Your task to perform on an android device: all mails in gmail Image 0: 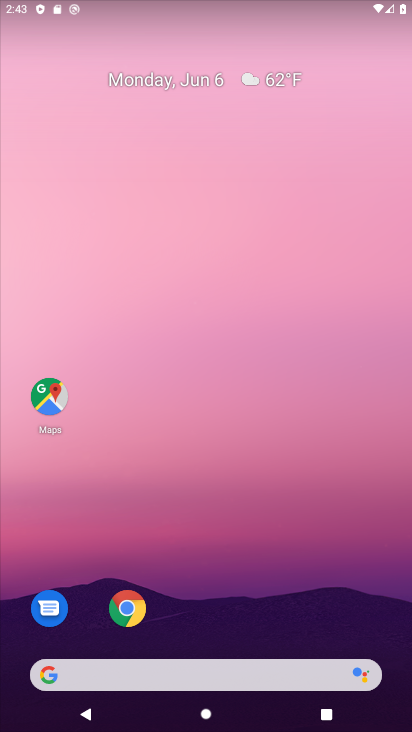
Step 0: drag from (254, 609) to (310, 22)
Your task to perform on an android device: all mails in gmail Image 1: 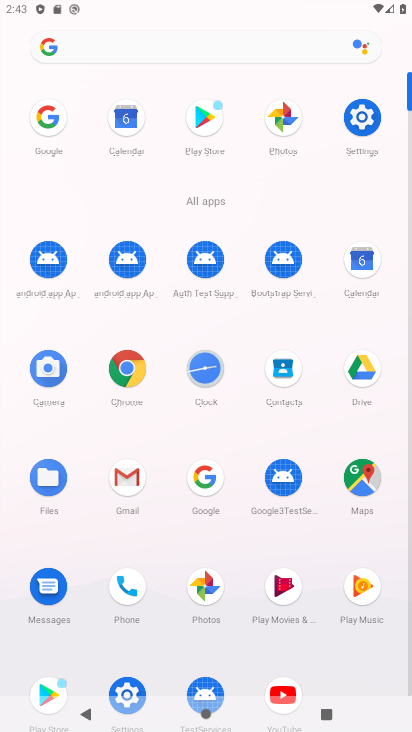
Step 1: click (127, 487)
Your task to perform on an android device: all mails in gmail Image 2: 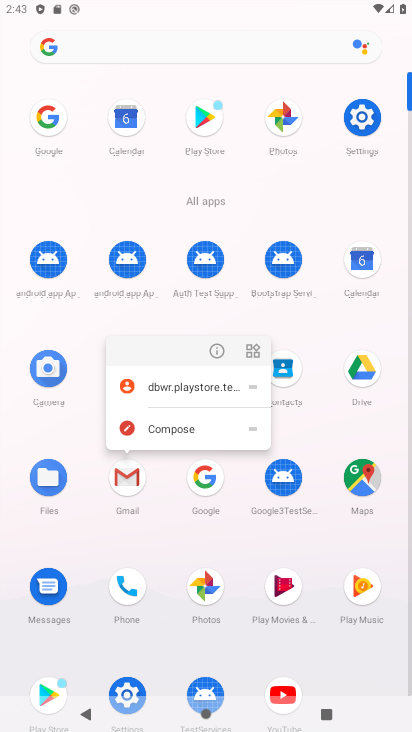
Step 2: click (127, 487)
Your task to perform on an android device: all mails in gmail Image 3: 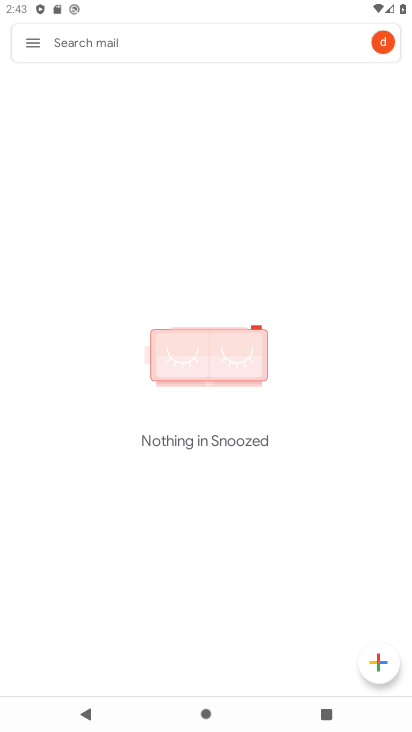
Step 3: click (32, 35)
Your task to perform on an android device: all mails in gmail Image 4: 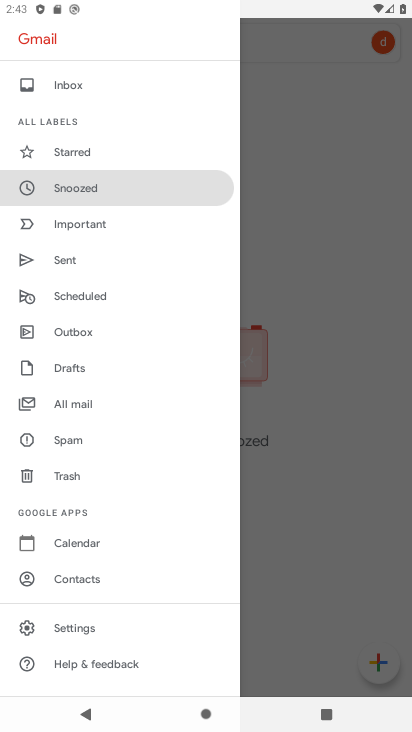
Step 4: click (74, 402)
Your task to perform on an android device: all mails in gmail Image 5: 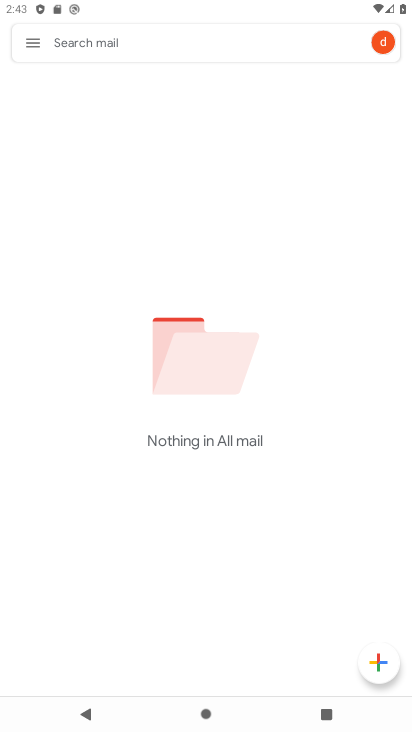
Step 5: task complete